Your task to perform on an android device: Check the news Image 0: 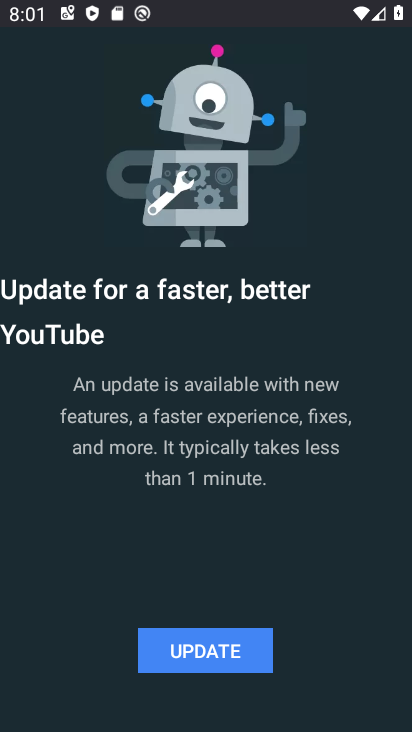
Step 0: press home button
Your task to perform on an android device: Check the news Image 1: 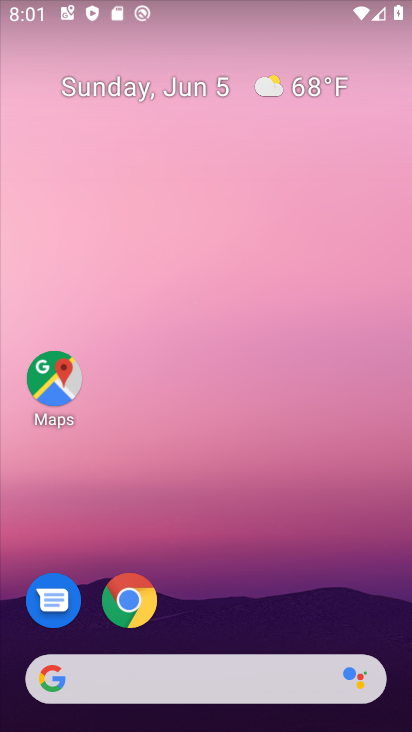
Step 1: click (226, 683)
Your task to perform on an android device: Check the news Image 2: 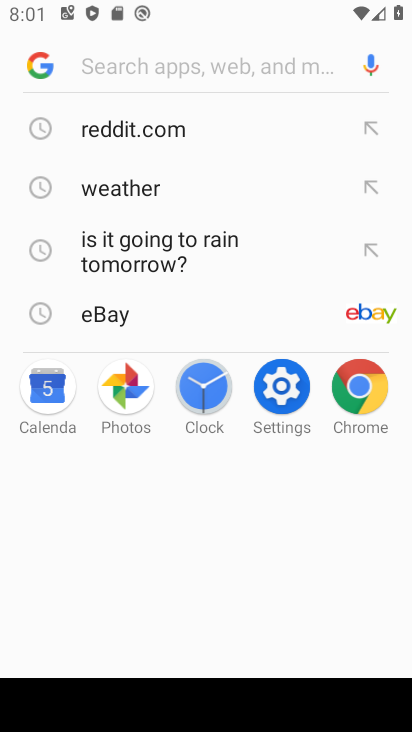
Step 2: type "news"
Your task to perform on an android device: Check the news Image 3: 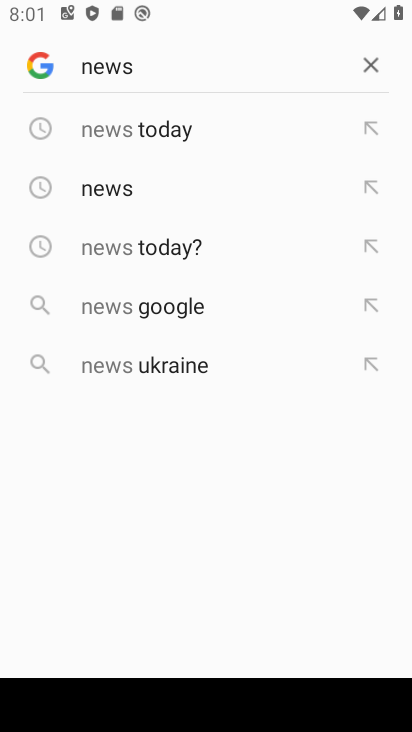
Step 3: click (125, 183)
Your task to perform on an android device: Check the news Image 4: 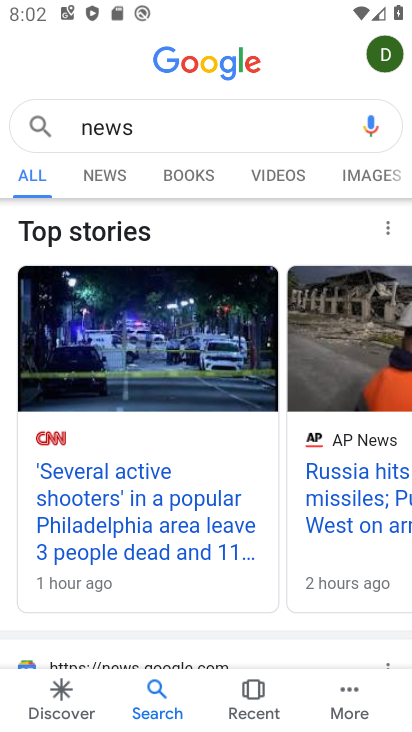
Step 4: click (113, 174)
Your task to perform on an android device: Check the news Image 5: 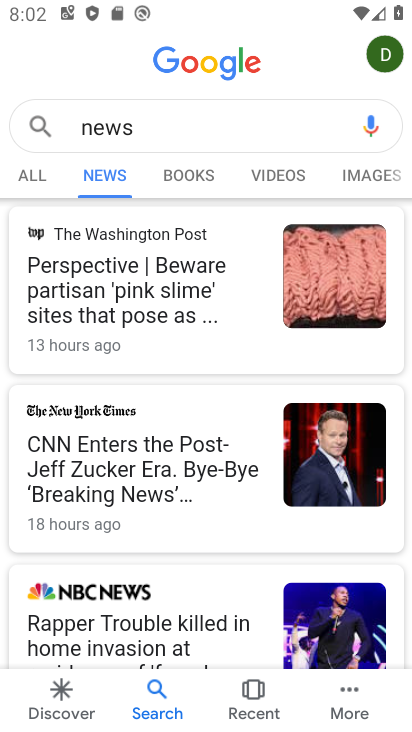
Step 5: task complete